Your task to perform on an android device: Open calendar and show me the second week of next month Image 0: 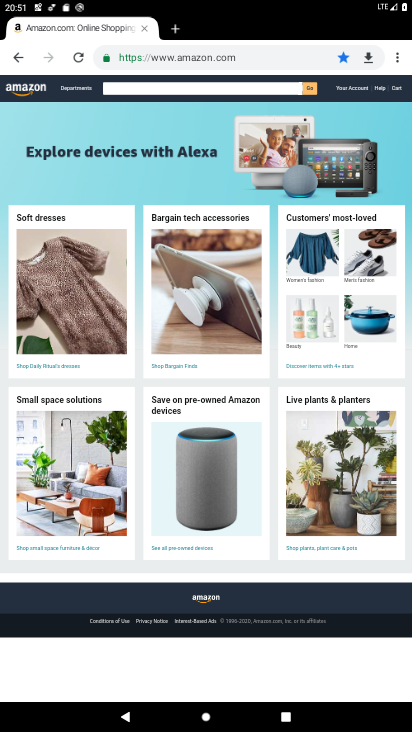
Step 0: press home button
Your task to perform on an android device: Open calendar and show me the second week of next month Image 1: 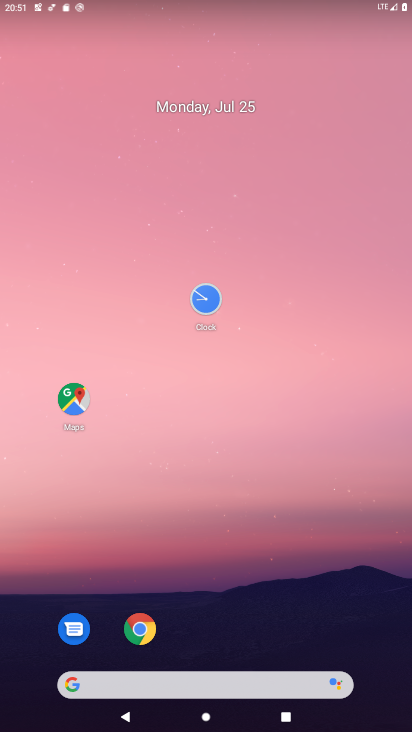
Step 1: drag from (284, 575) to (385, 42)
Your task to perform on an android device: Open calendar and show me the second week of next month Image 2: 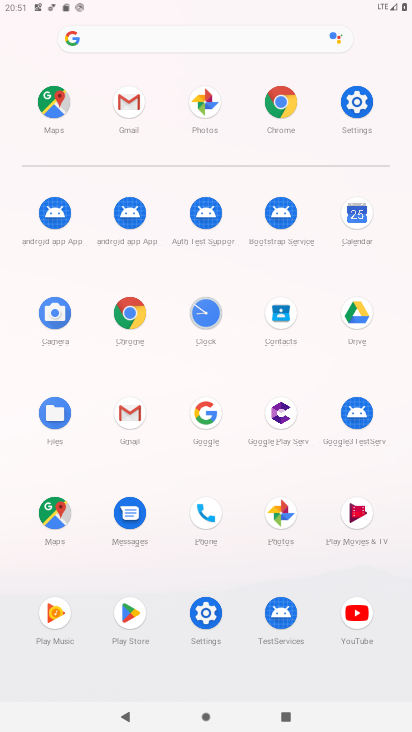
Step 2: click (359, 228)
Your task to perform on an android device: Open calendar and show me the second week of next month Image 3: 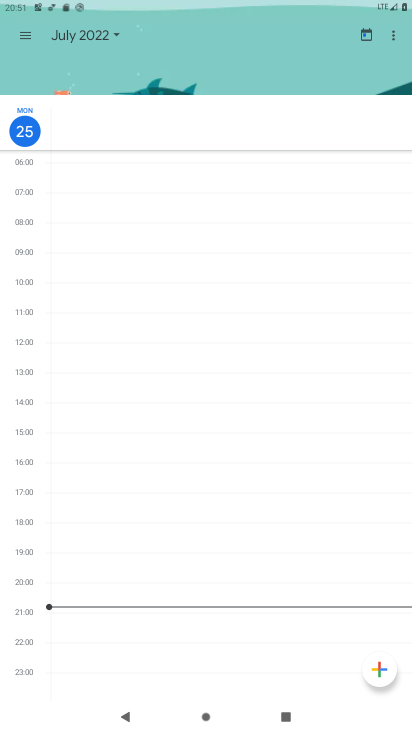
Step 3: click (26, 32)
Your task to perform on an android device: Open calendar and show me the second week of next month Image 4: 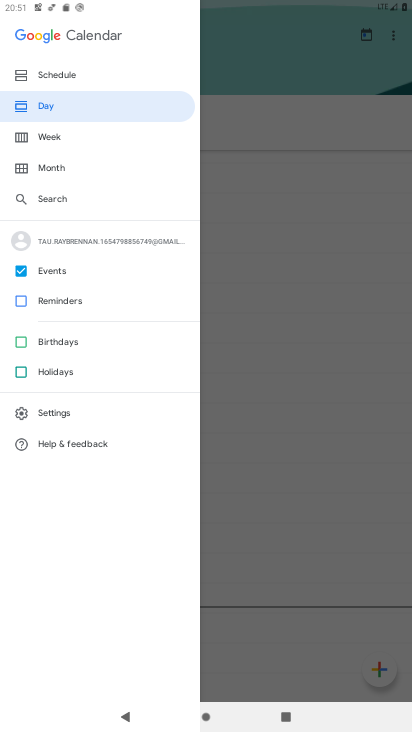
Step 4: click (65, 166)
Your task to perform on an android device: Open calendar and show me the second week of next month Image 5: 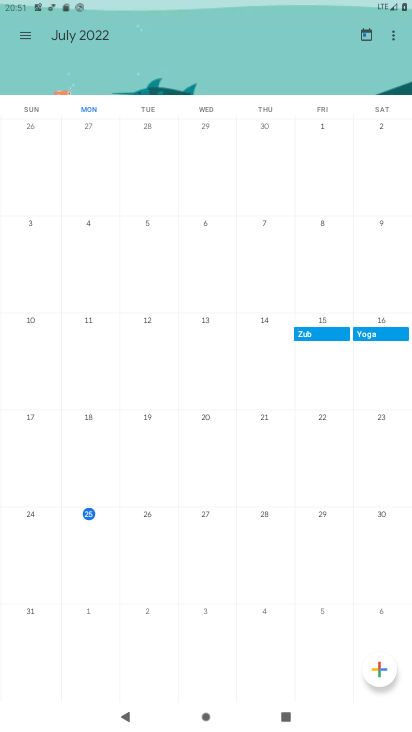
Step 5: drag from (280, 199) to (3, 152)
Your task to perform on an android device: Open calendar and show me the second week of next month Image 6: 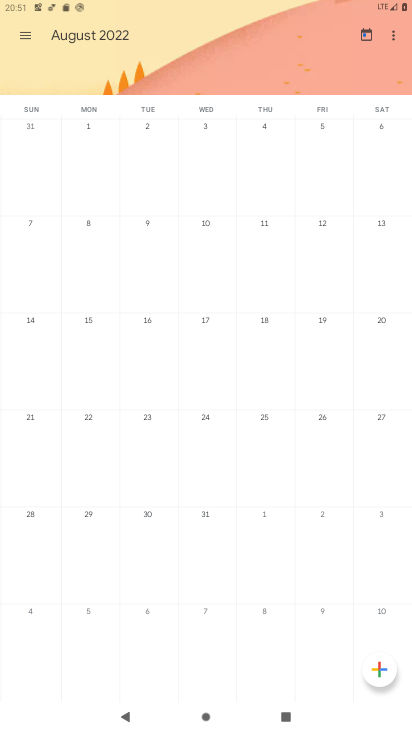
Step 6: click (27, 39)
Your task to perform on an android device: Open calendar and show me the second week of next month Image 7: 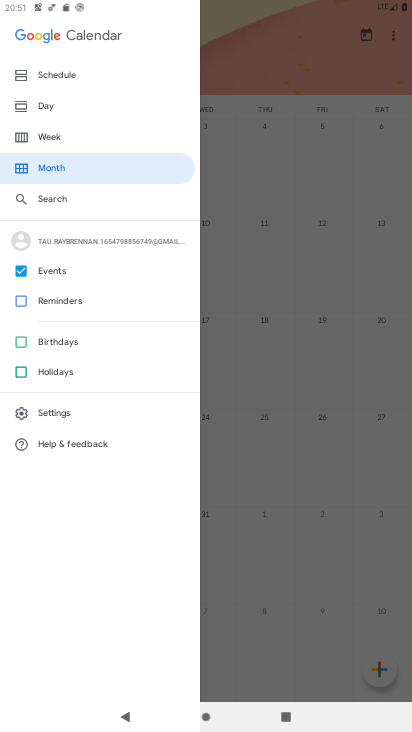
Step 7: click (57, 131)
Your task to perform on an android device: Open calendar and show me the second week of next month Image 8: 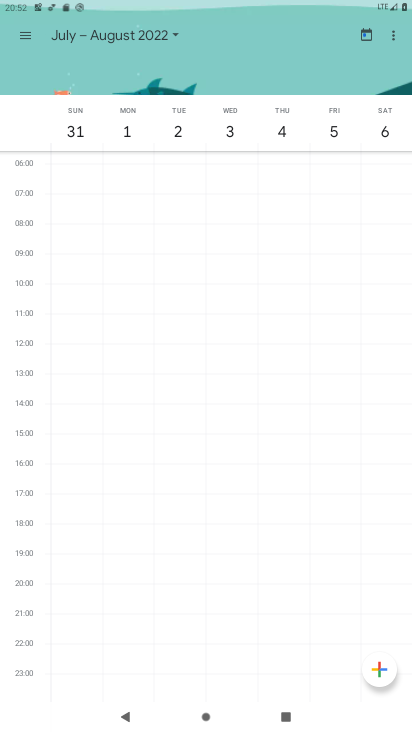
Step 8: task complete